Your task to perform on an android device: toggle wifi Image 0: 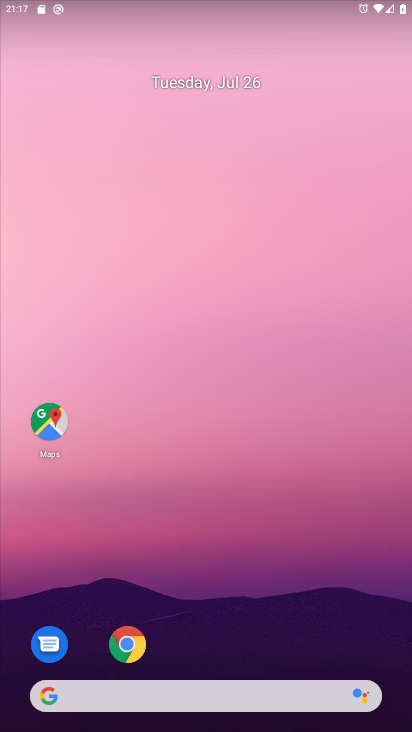
Step 0: drag from (171, 645) to (198, 273)
Your task to perform on an android device: toggle wifi Image 1: 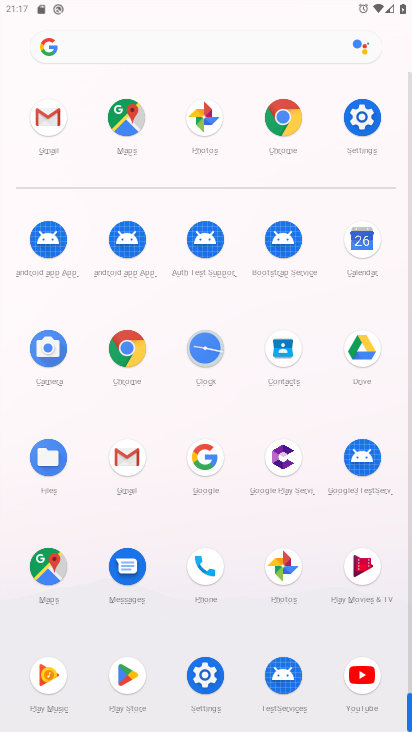
Step 1: click (345, 104)
Your task to perform on an android device: toggle wifi Image 2: 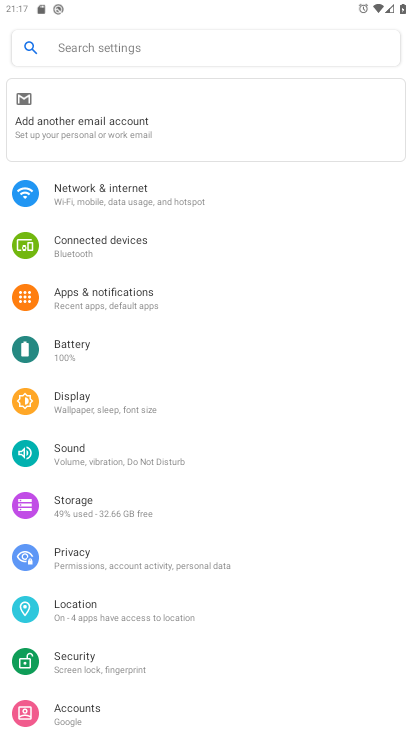
Step 2: click (101, 179)
Your task to perform on an android device: toggle wifi Image 3: 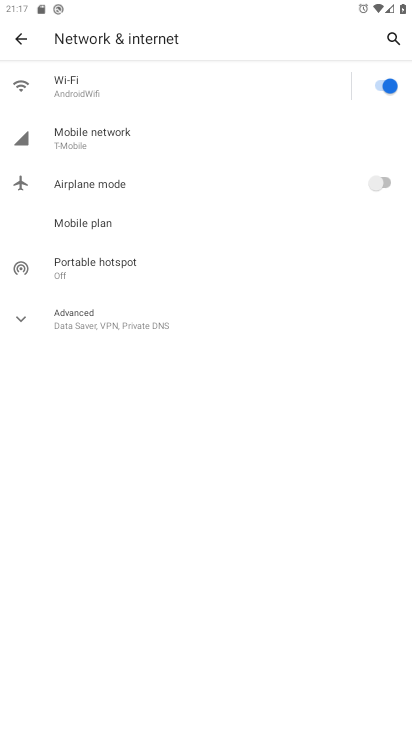
Step 3: click (93, 91)
Your task to perform on an android device: toggle wifi Image 4: 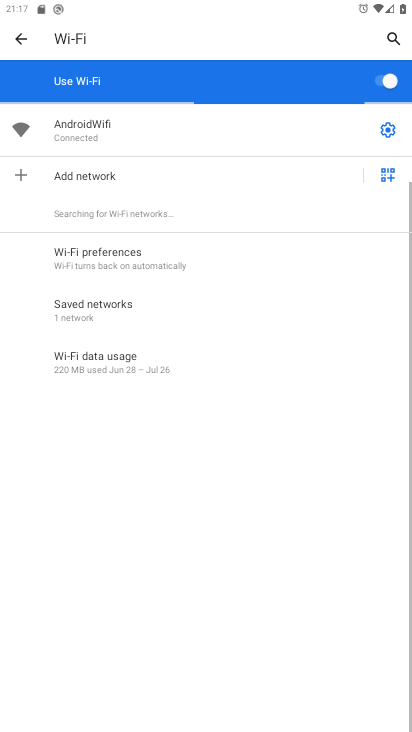
Step 4: click (384, 76)
Your task to perform on an android device: toggle wifi Image 5: 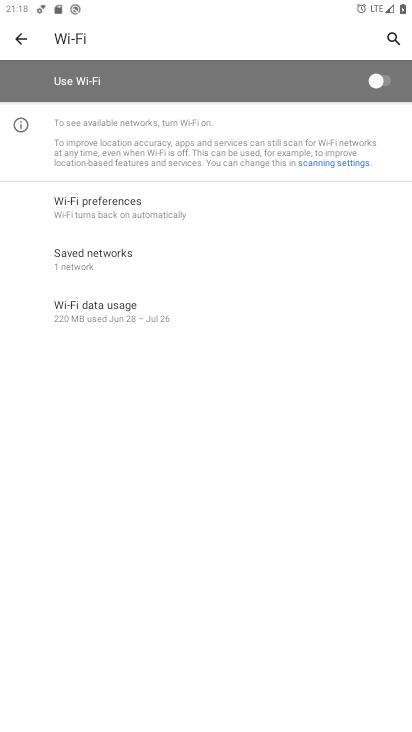
Step 5: task complete